Your task to perform on an android device: Go to sound settings Image 0: 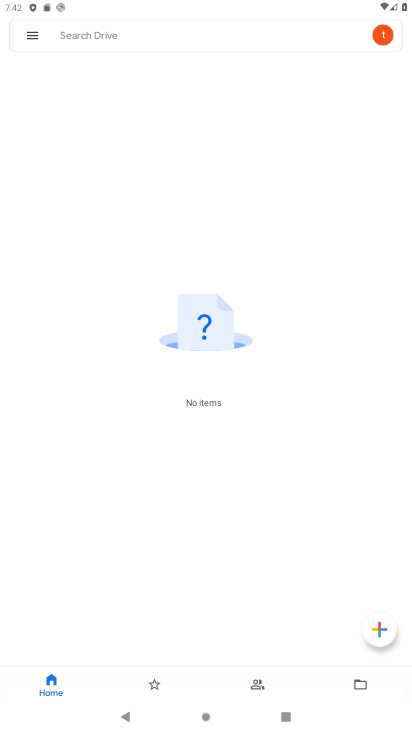
Step 0: press home button
Your task to perform on an android device: Go to sound settings Image 1: 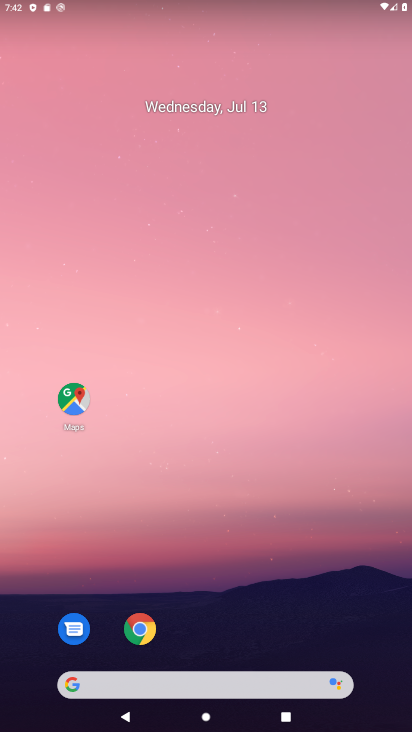
Step 1: drag from (107, 401) to (219, 67)
Your task to perform on an android device: Go to sound settings Image 2: 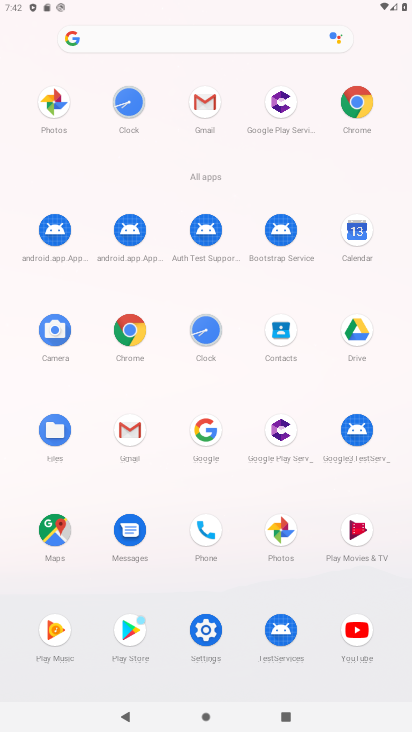
Step 2: click (213, 639)
Your task to perform on an android device: Go to sound settings Image 3: 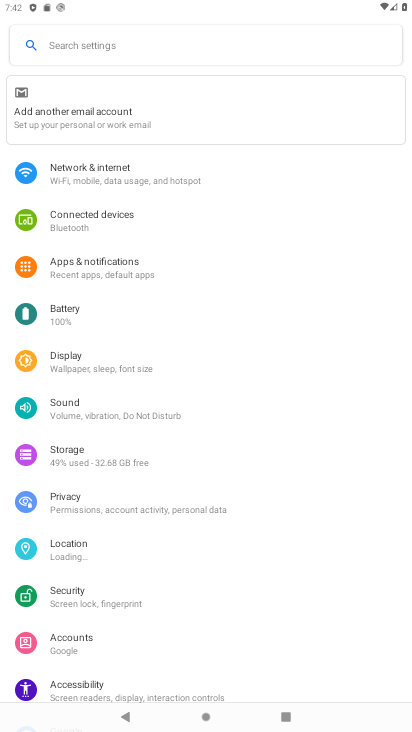
Step 3: click (85, 401)
Your task to perform on an android device: Go to sound settings Image 4: 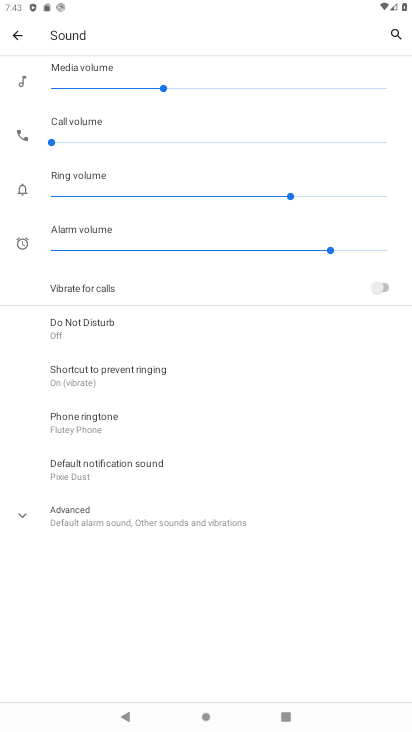
Step 4: task complete